Your task to perform on an android device: Open eBay Image 0: 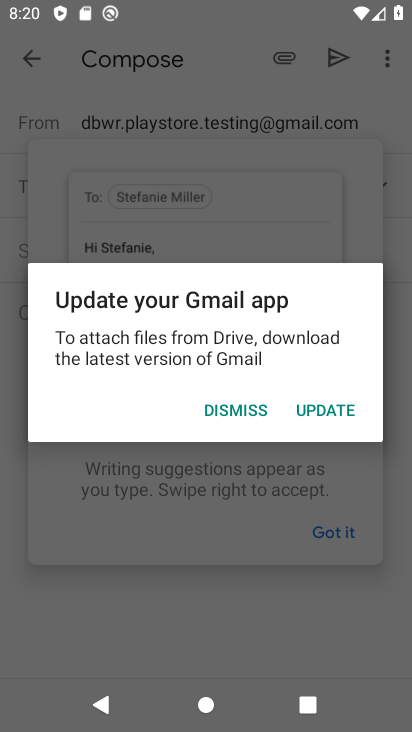
Step 0: press back button
Your task to perform on an android device: Open eBay Image 1: 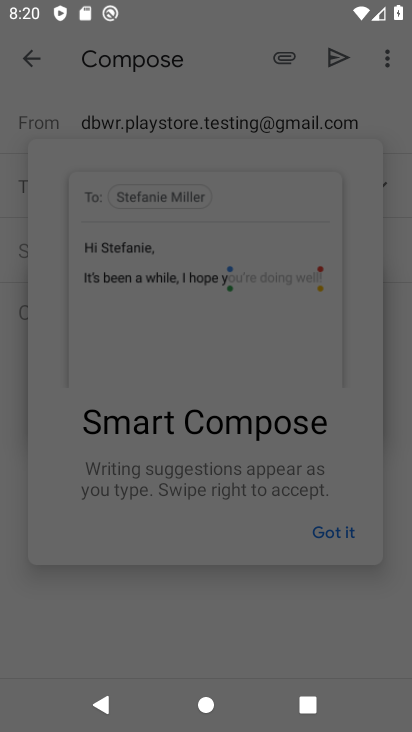
Step 1: press home button
Your task to perform on an android device: Open eBay Image 2: 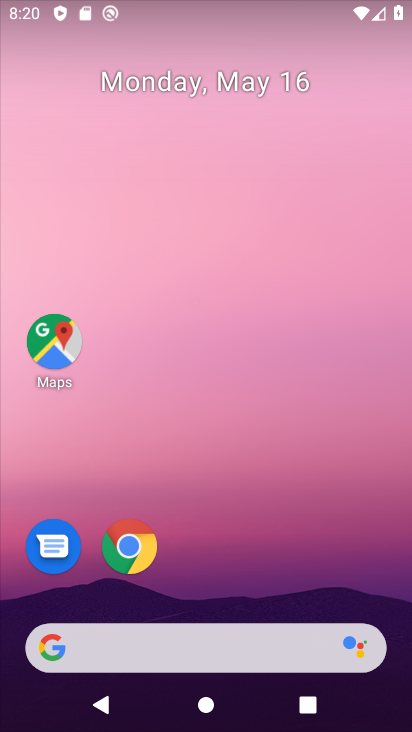
Step 2: click (147, 545)
Your task to perform on an android device: Open eBay Image 3: 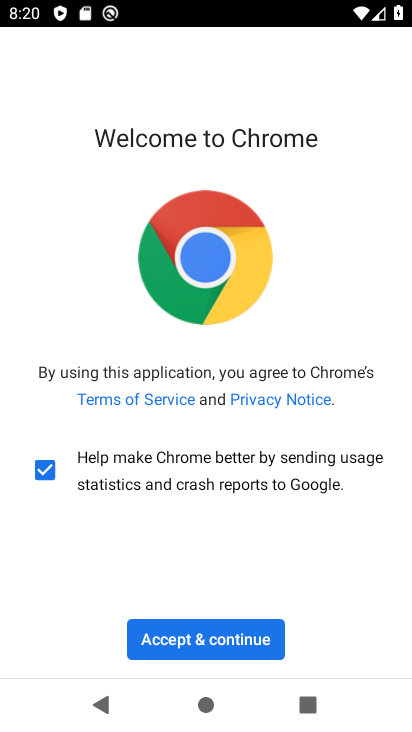
Step 3: click (224, 650)
Your task to perform on an android device: Open eBay Image 4: 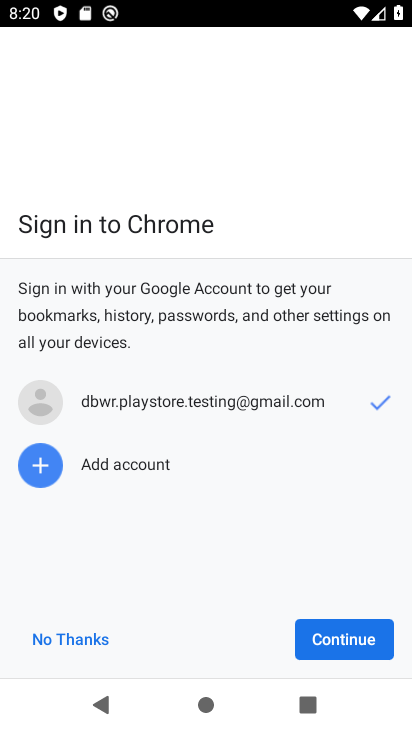
Step 4: click (91, 639)
Your task to perform on an android device: Open eBay Image 5: 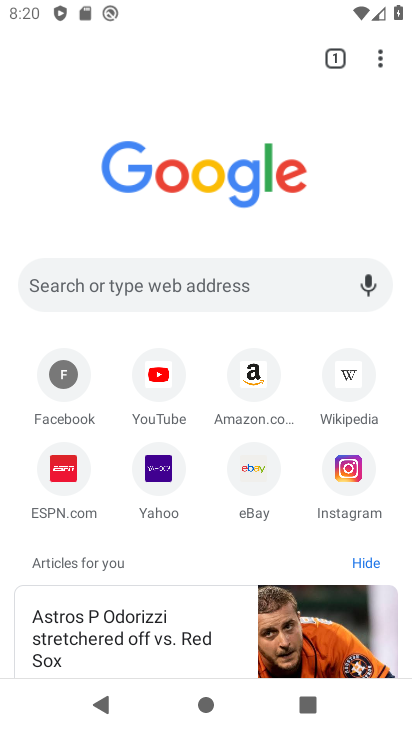
Step 5: click (255, 468)
Your task to perform on an android device: Open eBay Image 6: 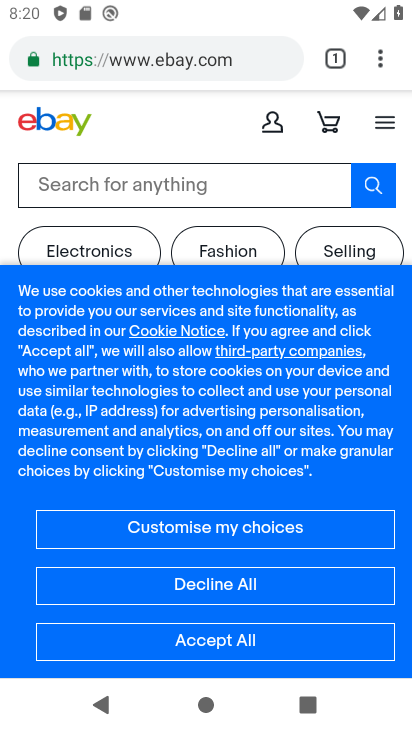
Step 6: task complete